Your task to perform on an android device: open wifi settings Image 0: 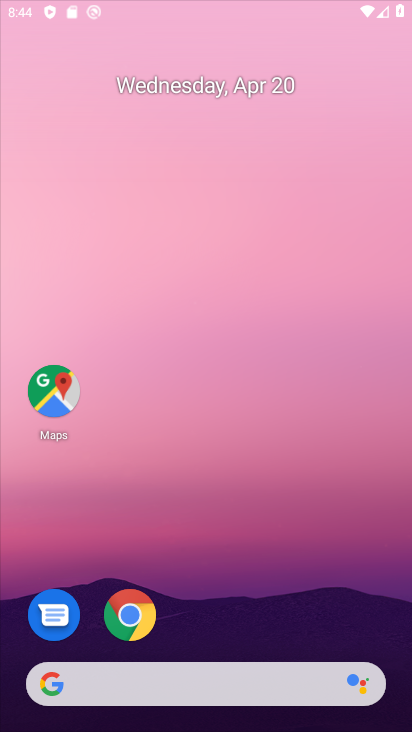
Step 0: drag from (250, 510) to (250, 214)
Your task to perform on an android device: open wifi settings Image 1: 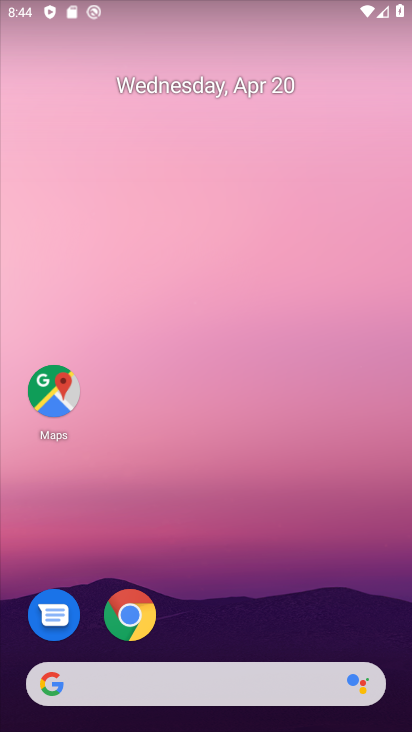
Step 1: drag from (306, 434) to (330, 272)
Your task to perform on an android device: open wifi settings Image 2: 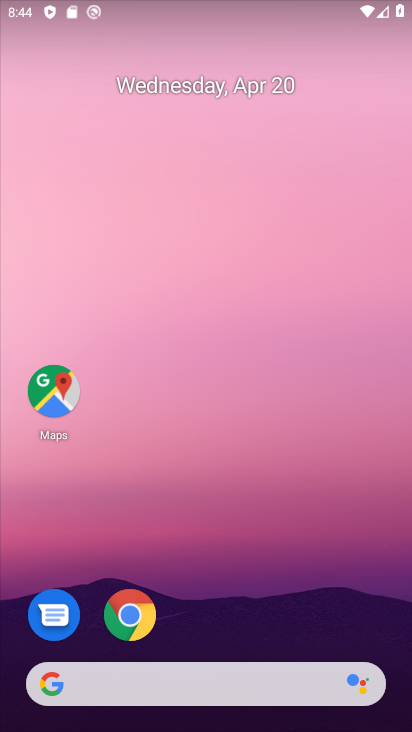
Step 2: drag from (256, 312) to (250, 205)
Your task to perform on an android device: open wifi settings Image 3: 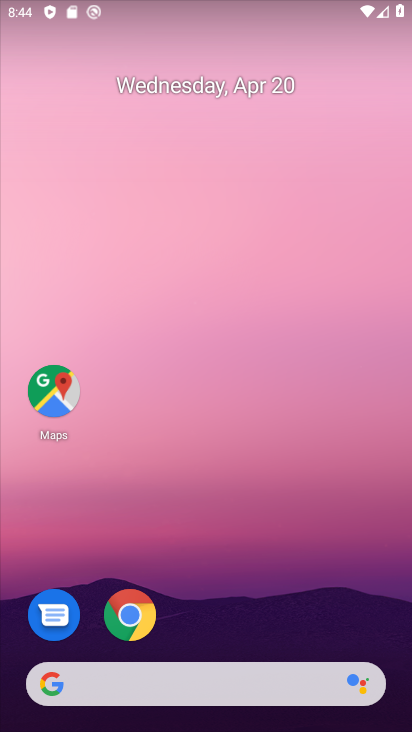
Step 3: drag from (191, 605) to (242, 236)
Your task to perform on an android device: open wifi settings Image 4: 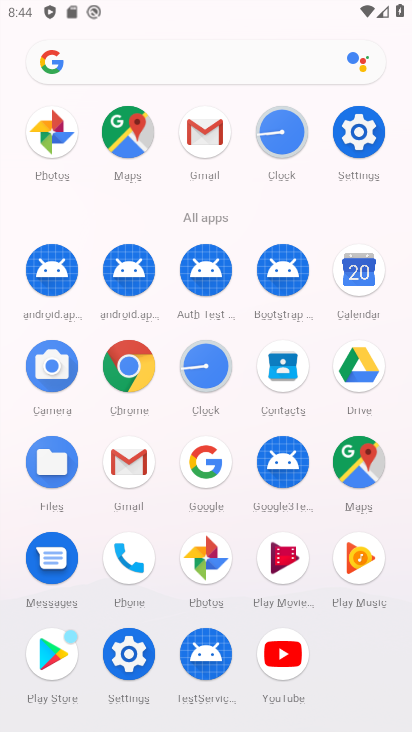
Step 4: click (363, 124)
Your task to perform on an android device: open wifi settings Image 5: 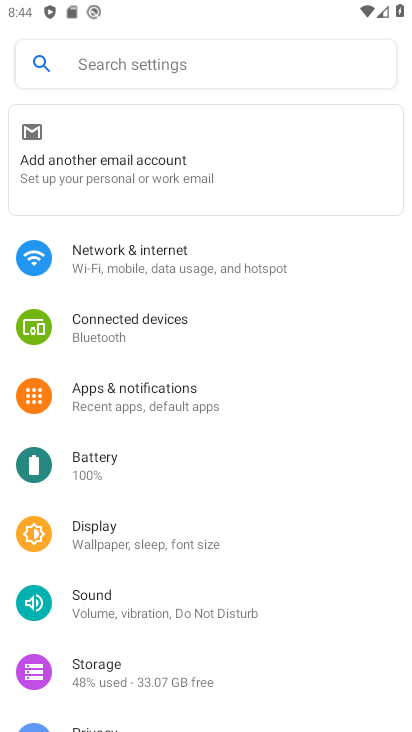
Step 5: click (196, 243)
Your task to perform on an android device: open wifi settings Image 6: 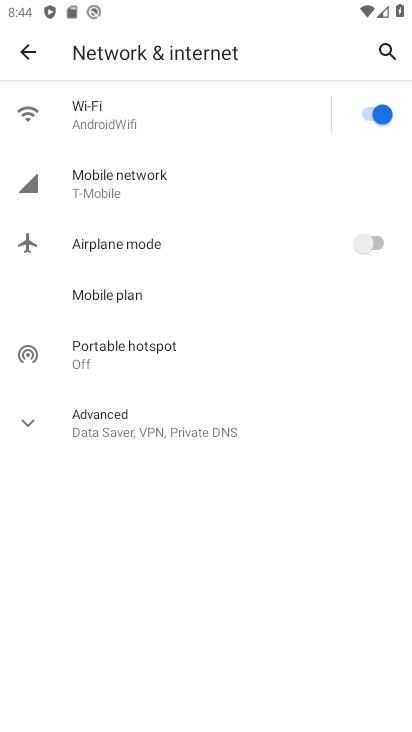
Step 6: click (187, 123)
Your task to perform on an android device: open wifi settings Image 7: 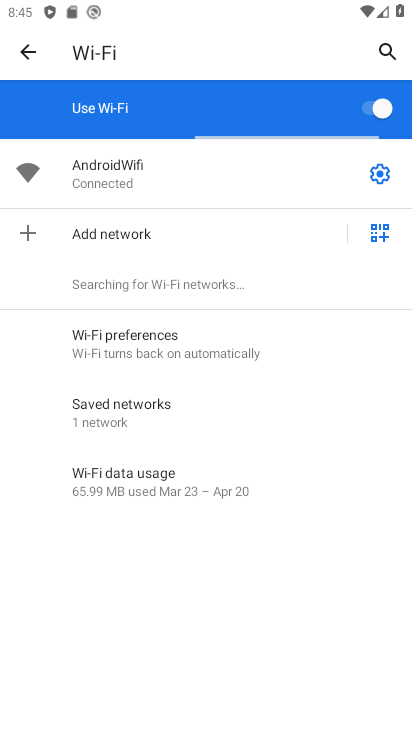
Step 7: task complete